Your task to perform on an android device: change keyboard looks Image 0: 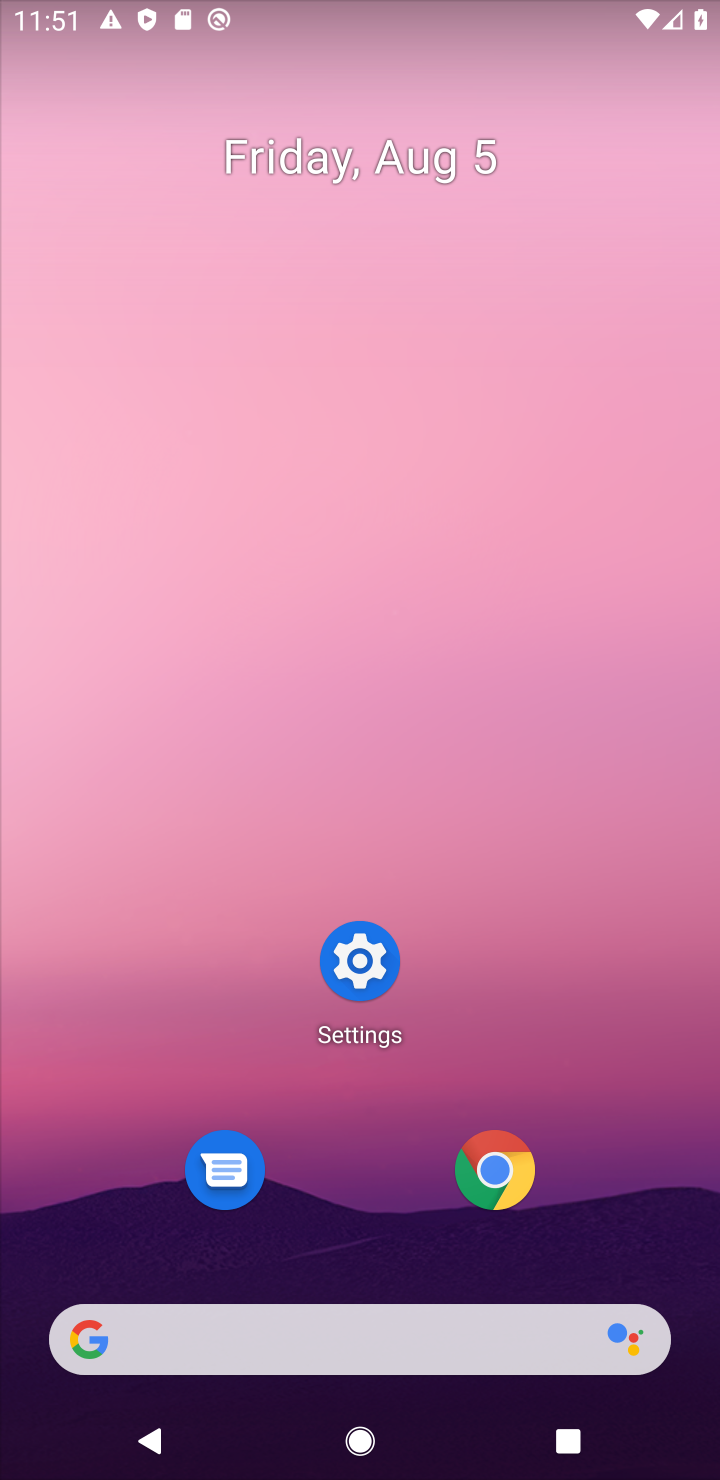
Step 0: click (348, 965)
Your task to perform on an android device: change keyboard looks Image 1: 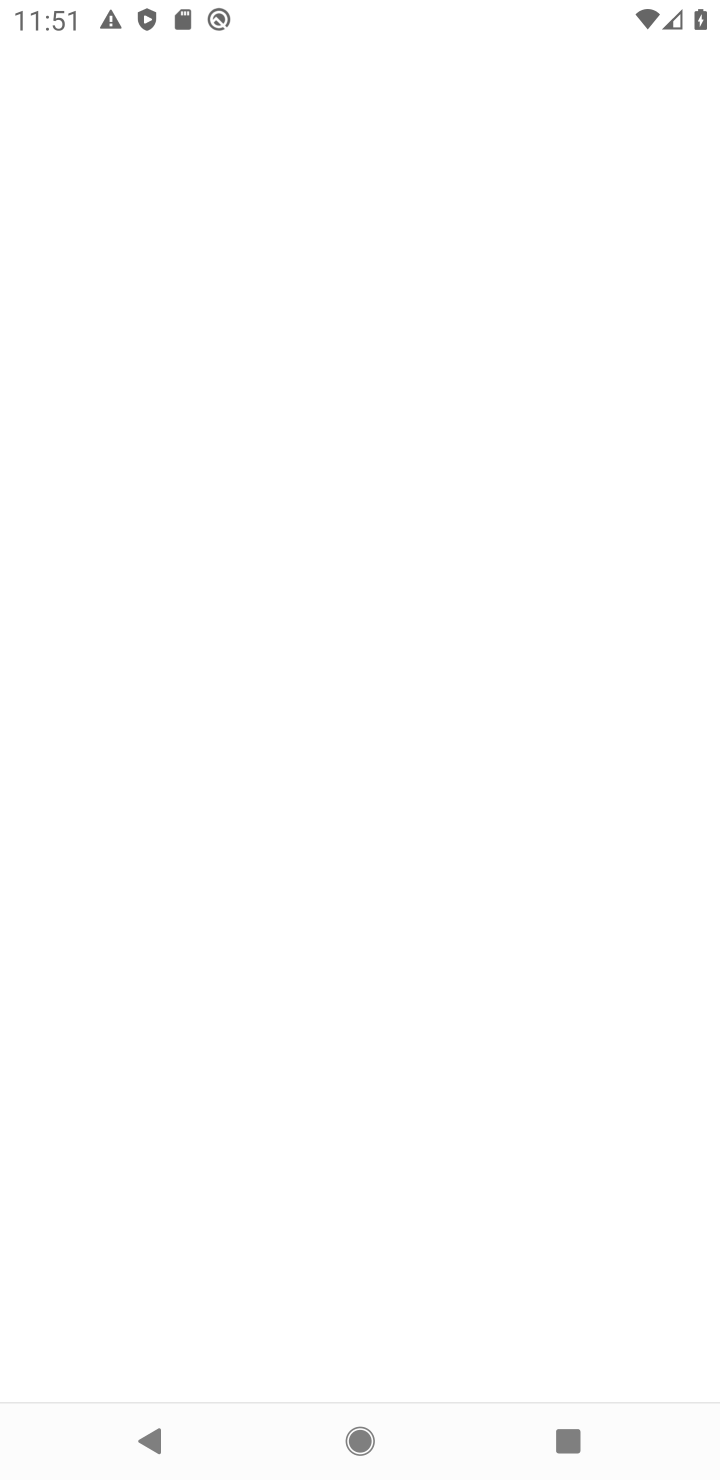
Step 1: click (348, 965)
Your task to perform on an android device: change keyboard looks Image 2: 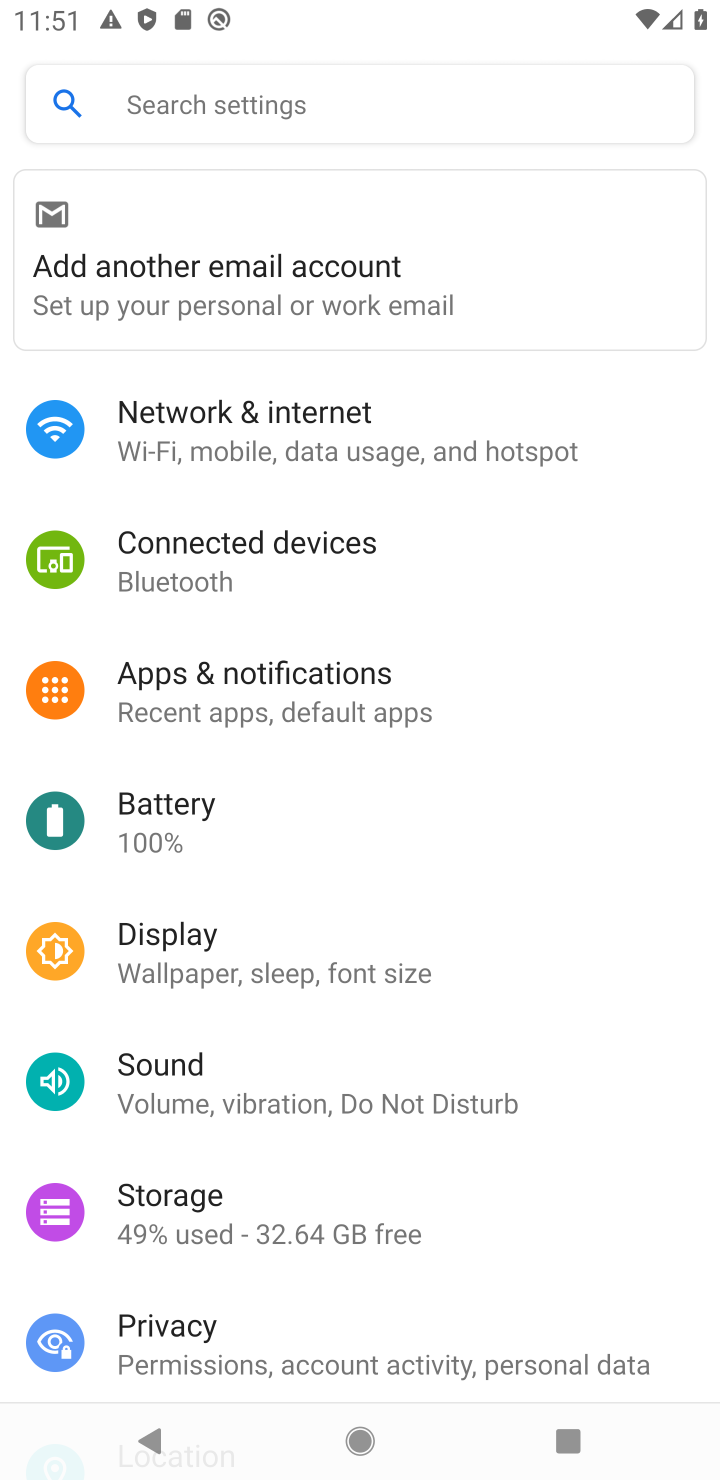
Step 2: drag from (543, 1113) to (559, 725)
Your task to perform on an android device: change keyboard looks Image 3: 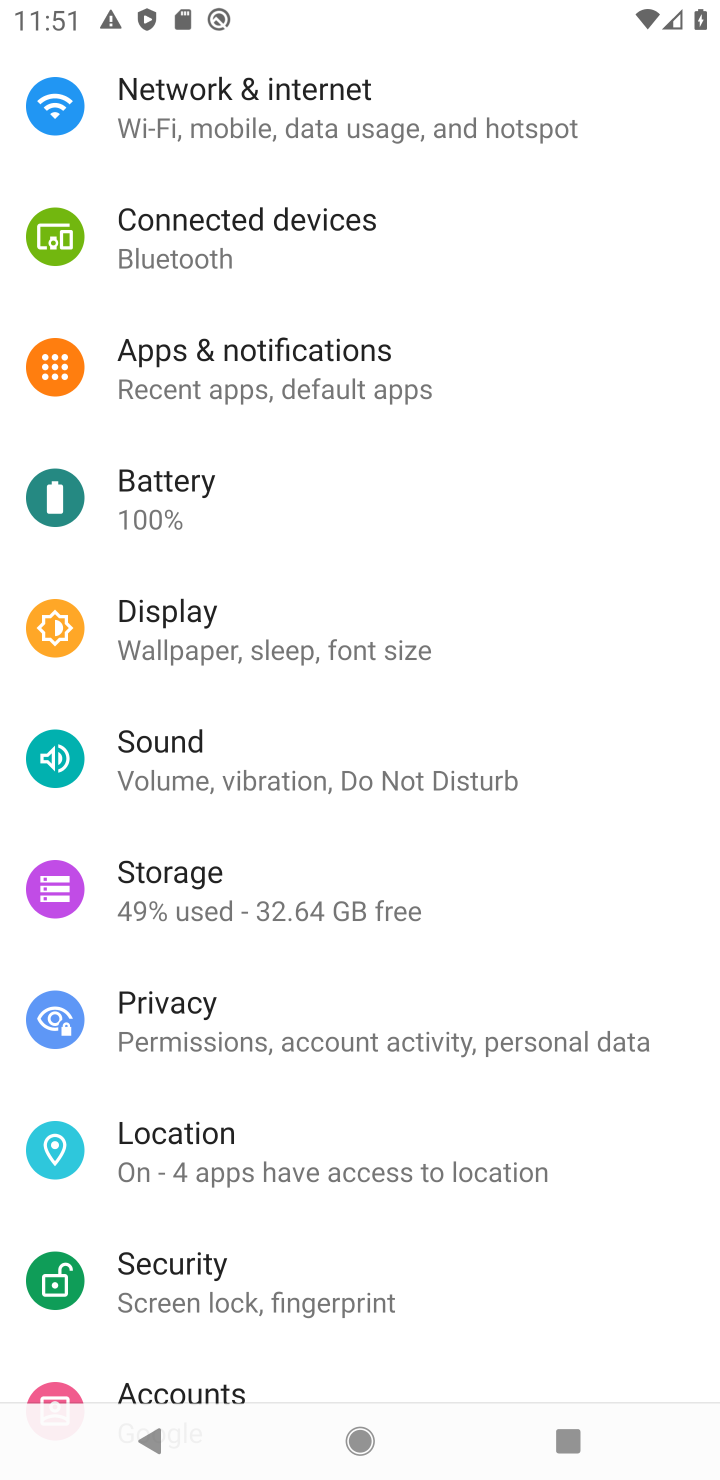
Step 3: drag from (526, 1289) to (628, 95)
Your task to perform on an android device: change keyboard looks Image 4: 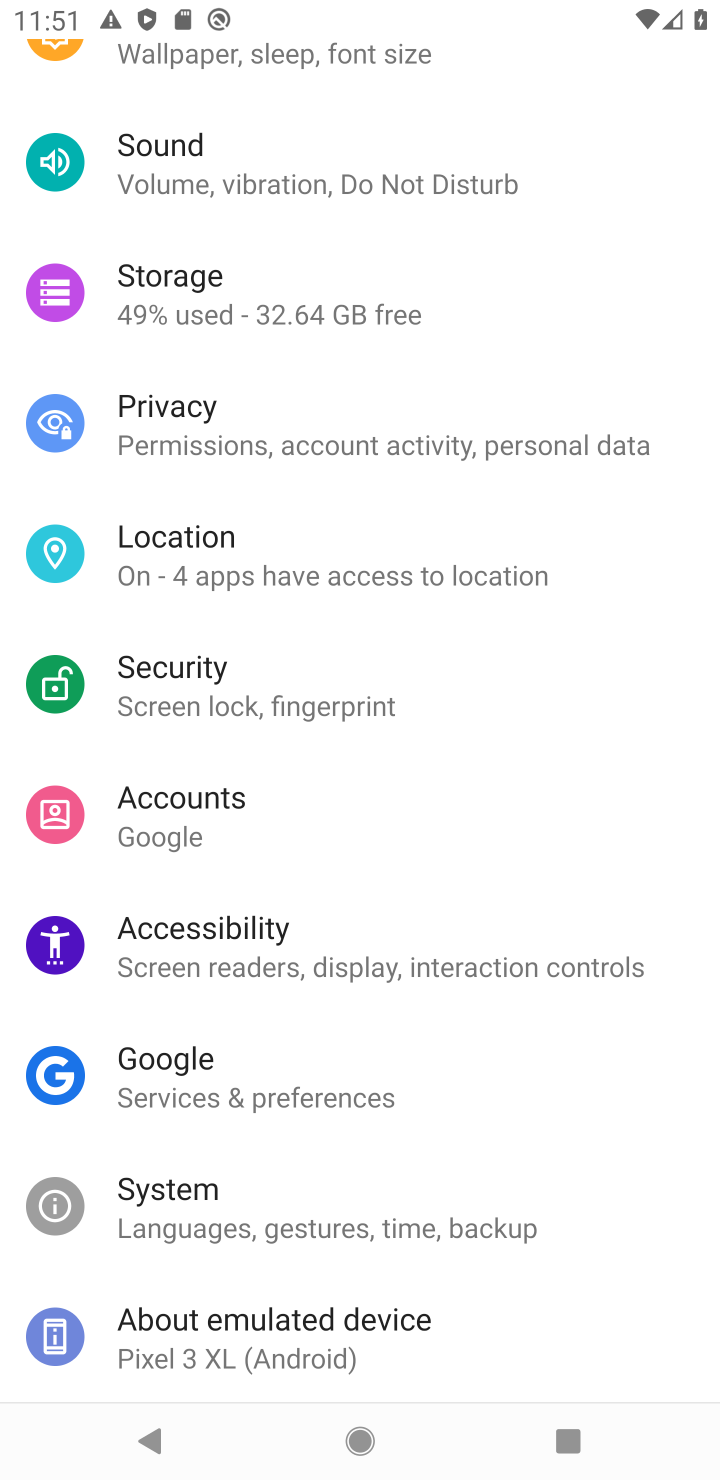
Step 4: click (162, 1212)
Your task to perform on an android device: change keyboard looks Image 5: 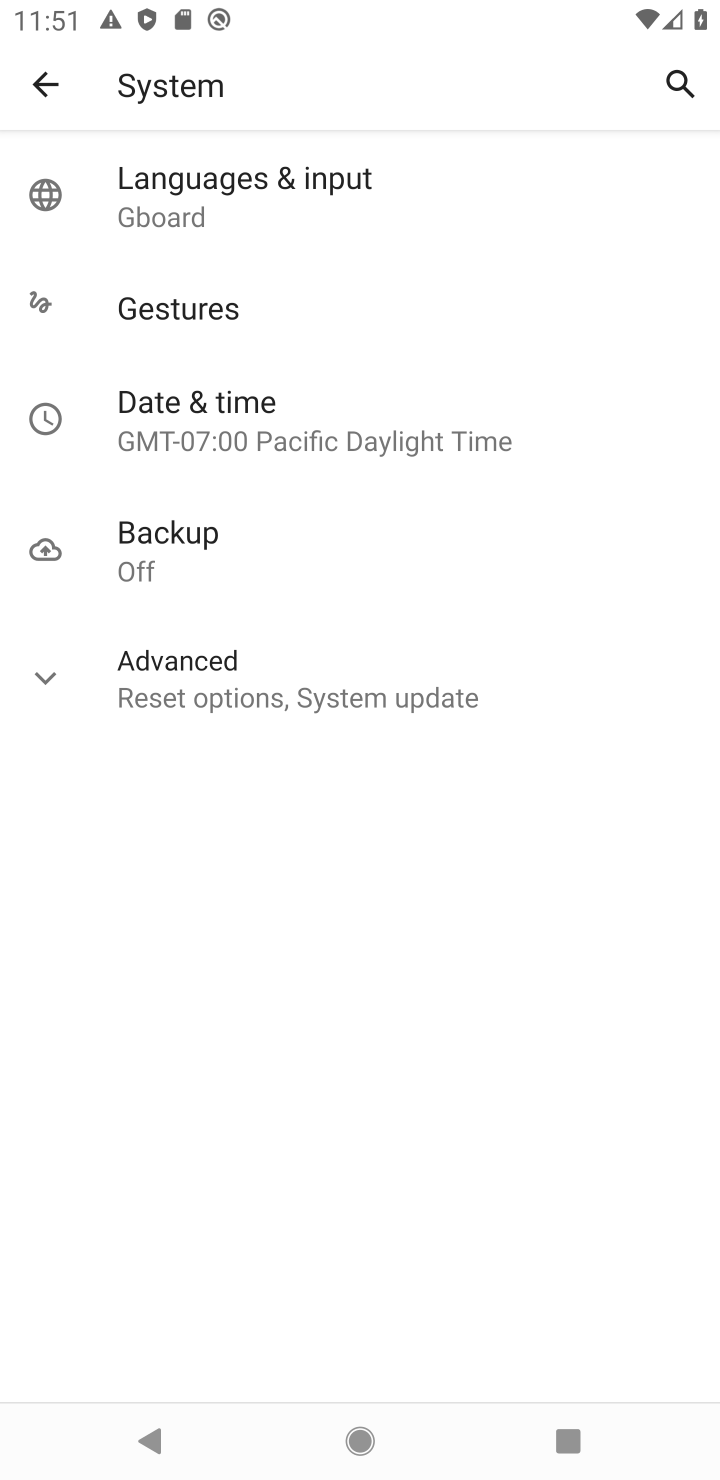
Step 5: click (215, 203)
Your task to perform on an android device: change keyboard looks Image 6: 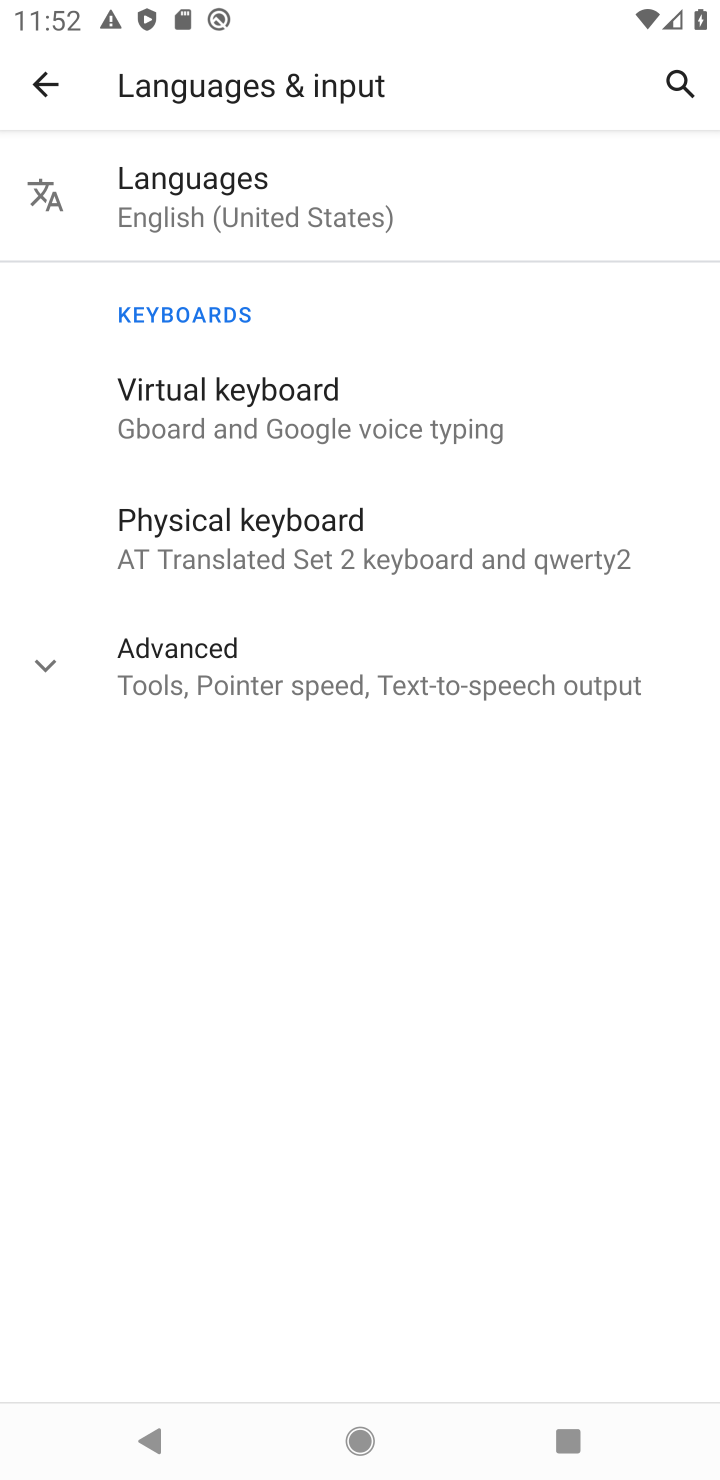
Step 6: click (235, 534)
Your task to perform on an android device: change keyboard looks Image 7: 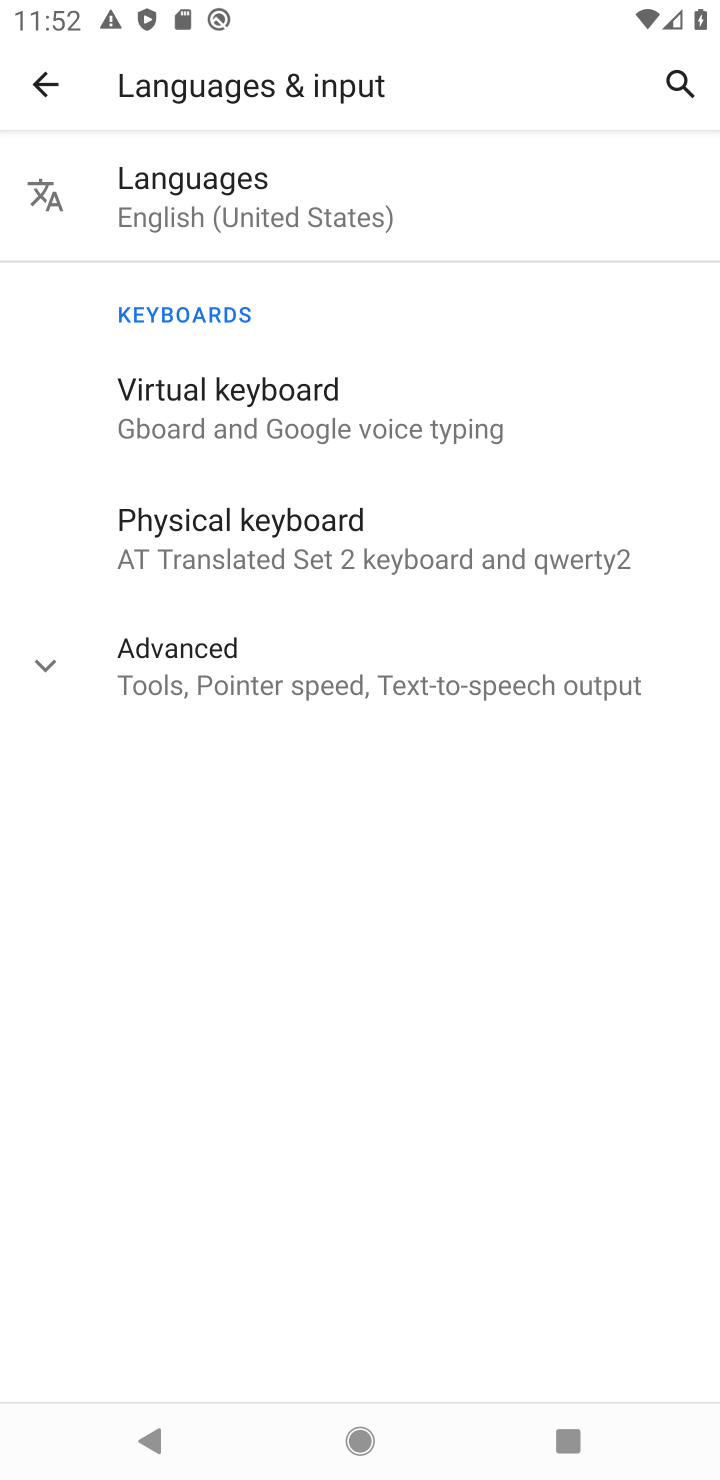
Step 7: click (235, 534)
Your task to perform on an android device: change keyboard looks Image 8: 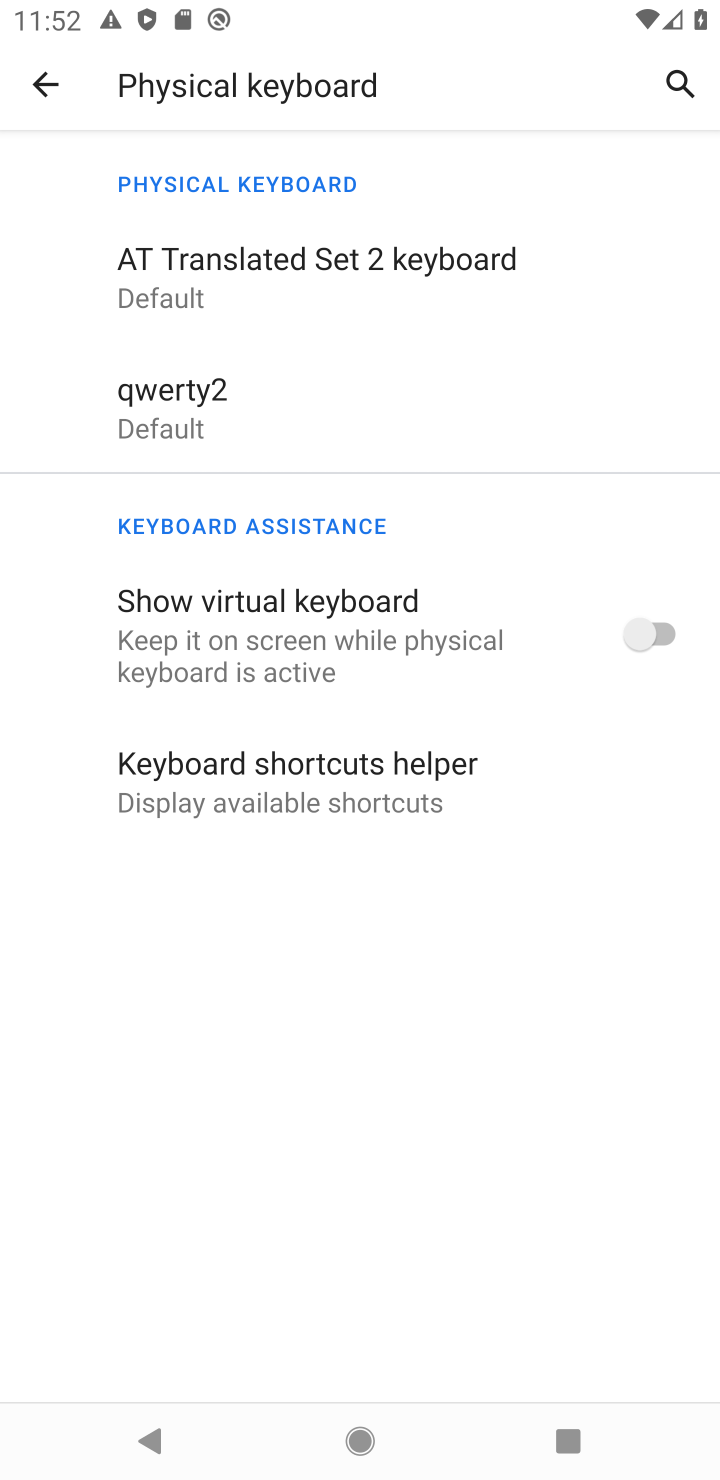
Step 8: click (655, 633)
Your task to perform on an android device: change keyboard looks Image 9: 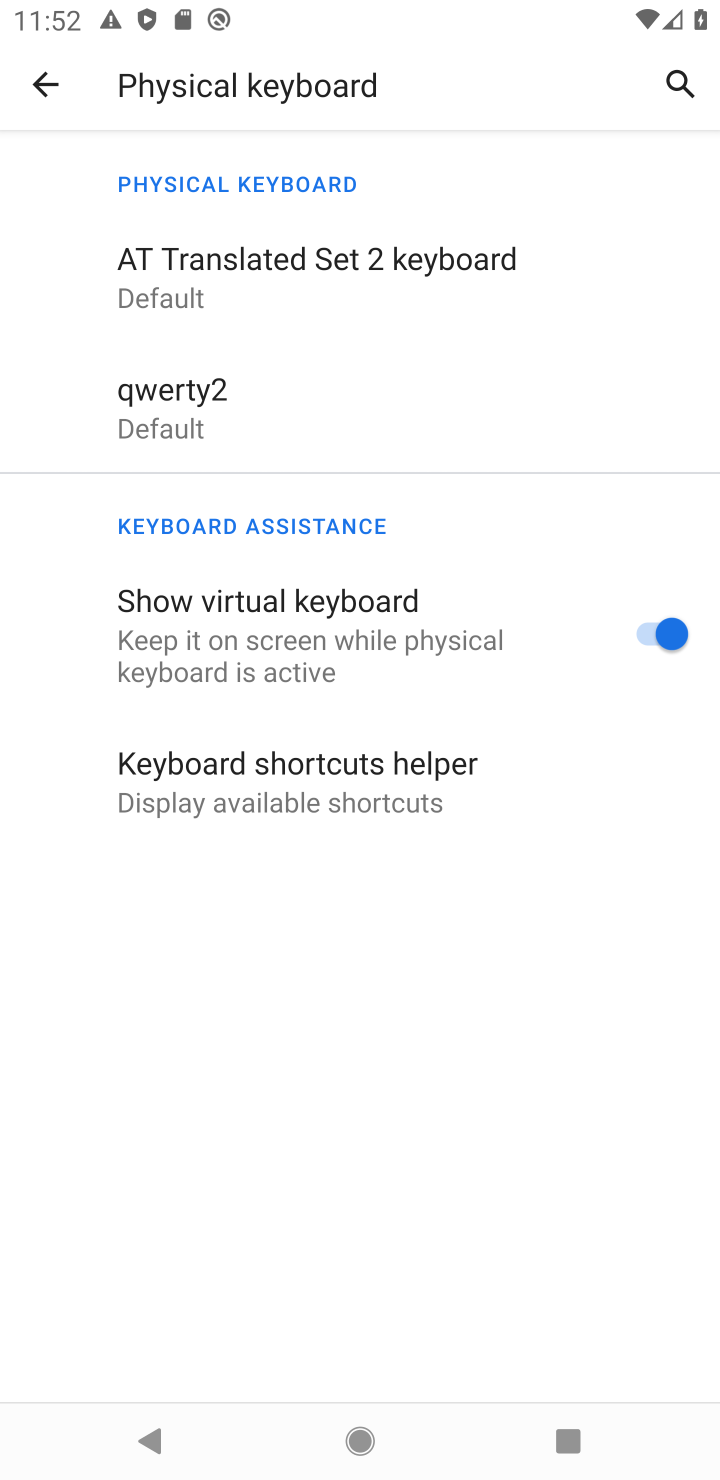
Step 9: task complete